Your task to perform on an android device: set an alarm Image 0: 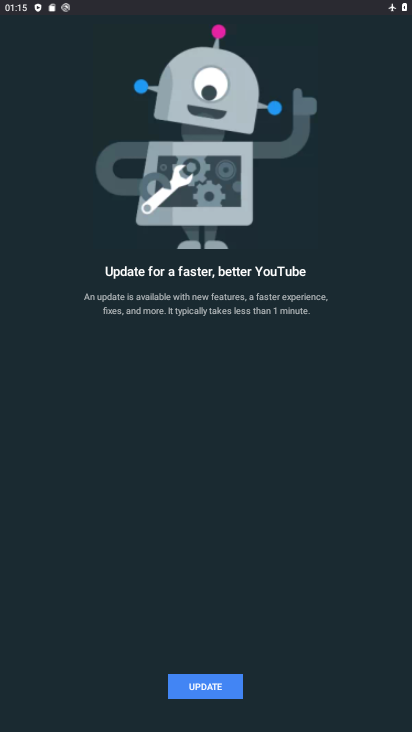
Step 0: press home button
Your task to perform on an android device: set an alarm Image 1: 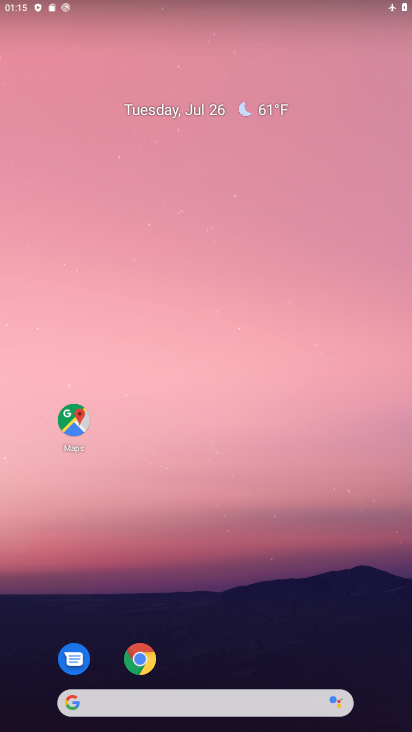
Step 1: drag from (278, 615) to (295, 4)
Your task to perform on an android device: set an alarm Image 2: 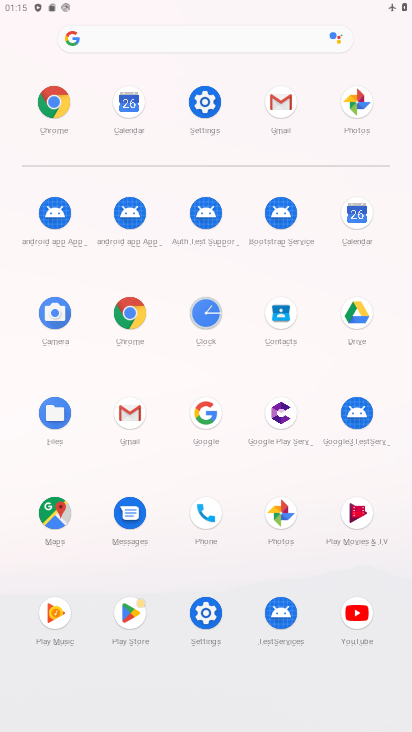
Step 2: click (197, 315)
Your task to perform on an android device: set an alarm Image 3: 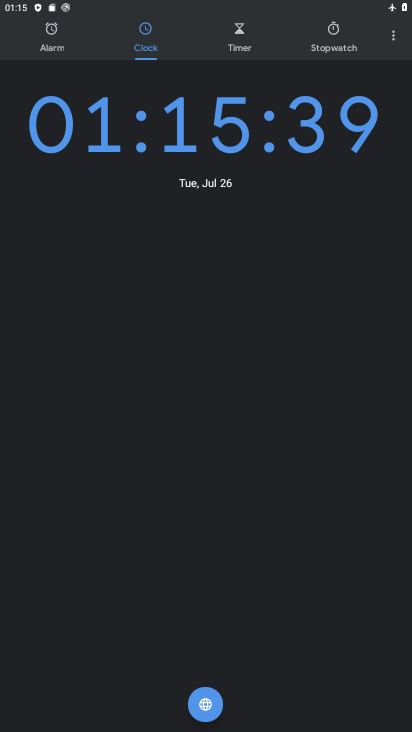
Step 3: click (46, 46)
Your task to perform on an android device: set an alarm Image 4: 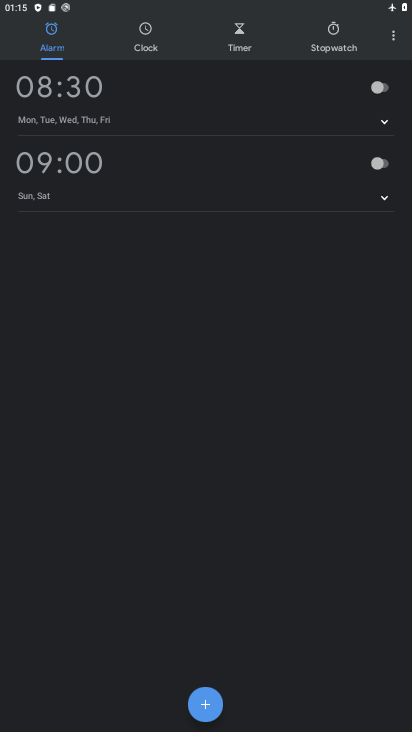
Step 4: click (205, 716)
Your task to perform on an android device: set an alarm Image 5: 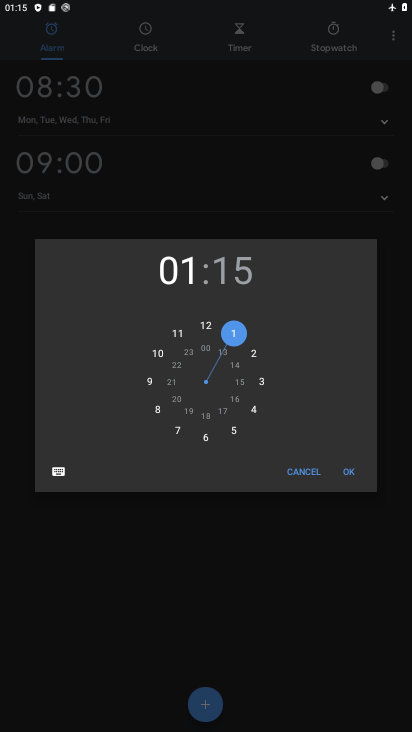
Step 5: click (354, 468)
Your task to perform on an android device: set an alarm Image 6: 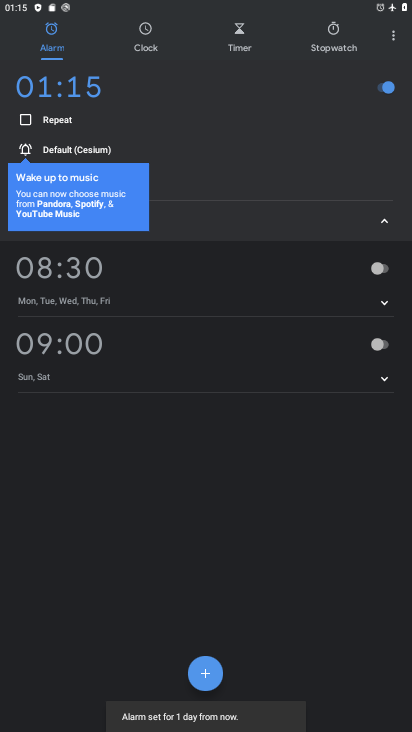
Step 6: task complete